Your task to perform on an android device: delete a single message in the gmail app Image 0: 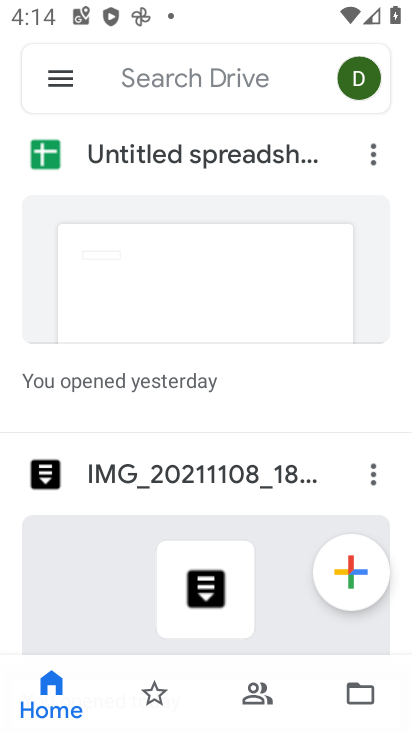
Step 0: press home button
Your task to perform on an android device: delete a single message in the gmail app Image 1: 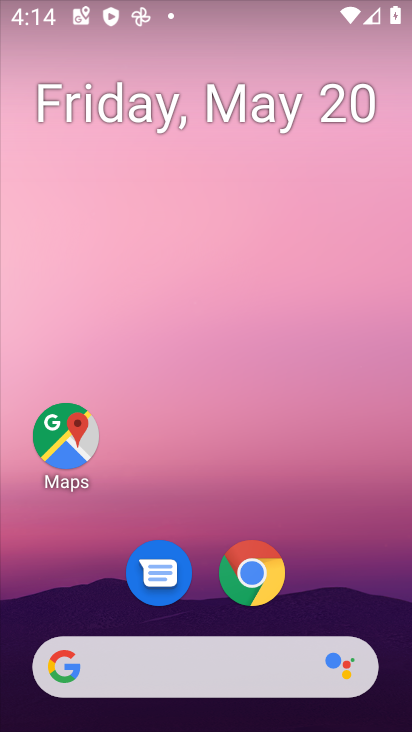
Step 1: drag from (387, 647) to (355, 146)
Your task to perform on an android device: delete a single message in the gmail app Image 2: 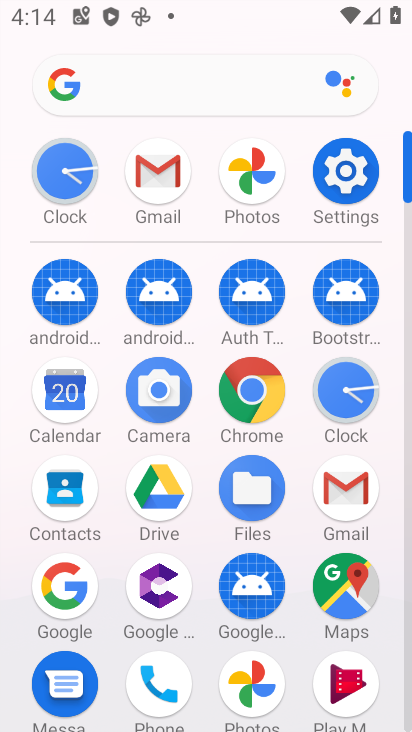
Step 2: click (345, 490)
Your task to perform on an android device: delete a single message in the gmail app Image 3: 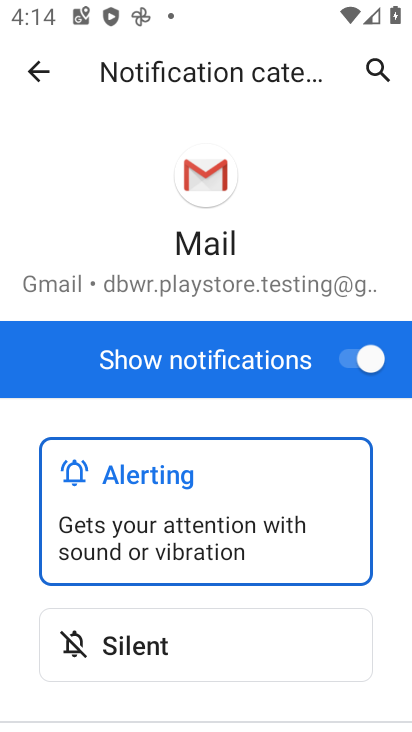
Step 3: press back button
Your task to perform on an android device: delete a single message in the gmail app Image 4: 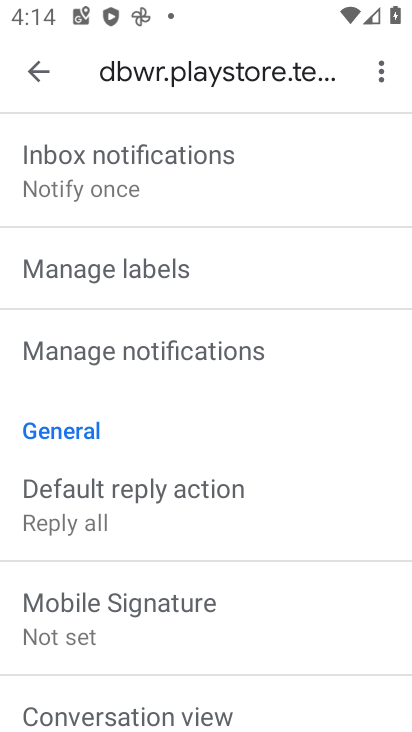
Step 4: press back button
Your task to perform on an android device: delete a single message in the gmail app Image 5: 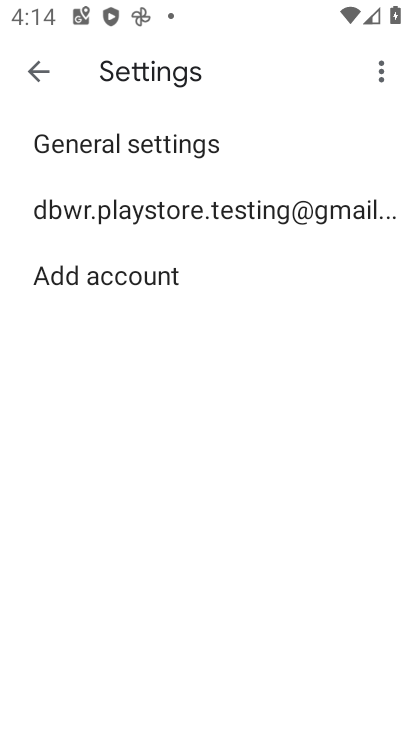
Step 5: press back button
Your task to perform on an android device: delete a single message in the gmail app Image 6: 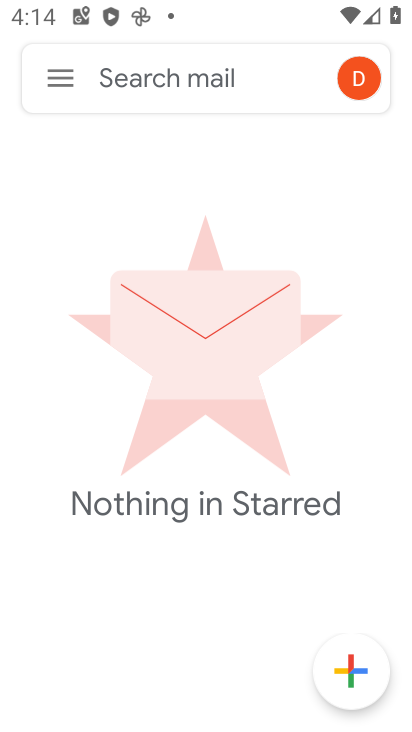
Step 6: click (53, 67)
Your task to perform on an android device: delete a single message in the gmail app Image 7: 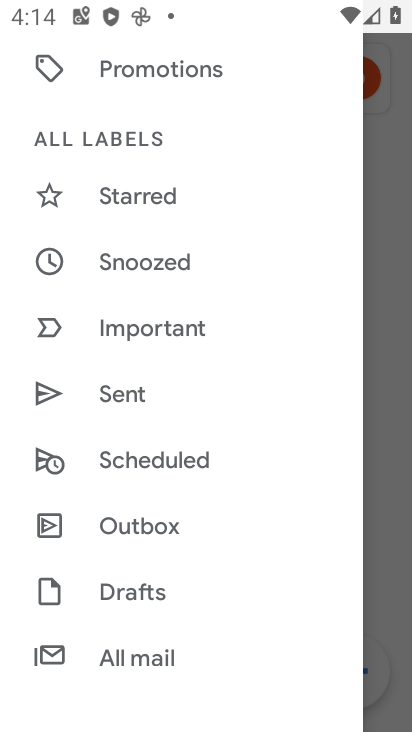
Step 7: click (137, 655)
Your task to perform on an android device: delete a single message in the gmail app Image 8: 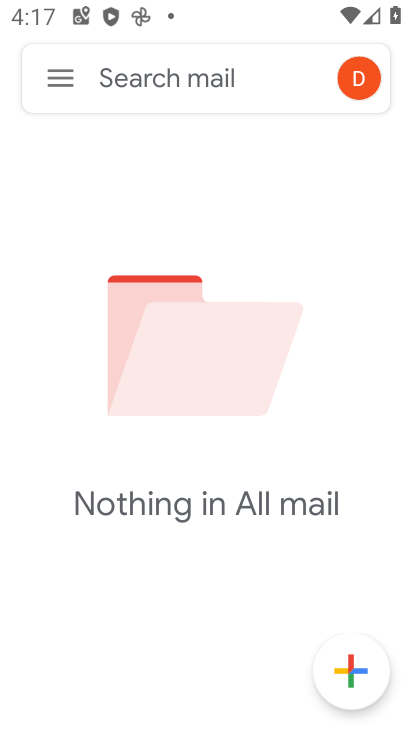
Step 8: task complete